Your task to perform on an android device: turn off translation in the chrome app Image 0: 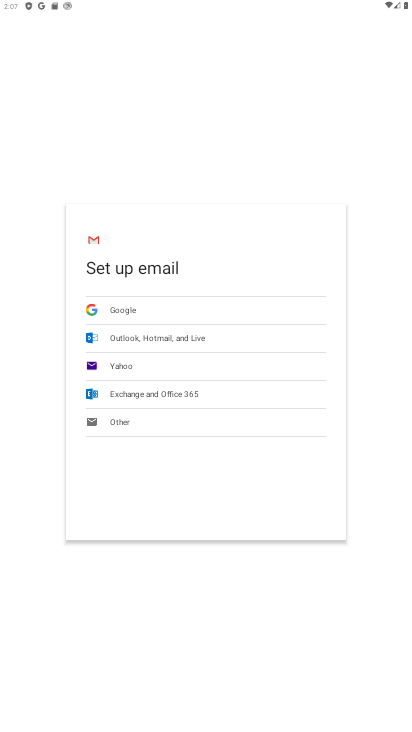
Step 0: press home button
Your task to perform on an android device: turn off translation in the chrome app Image 1: 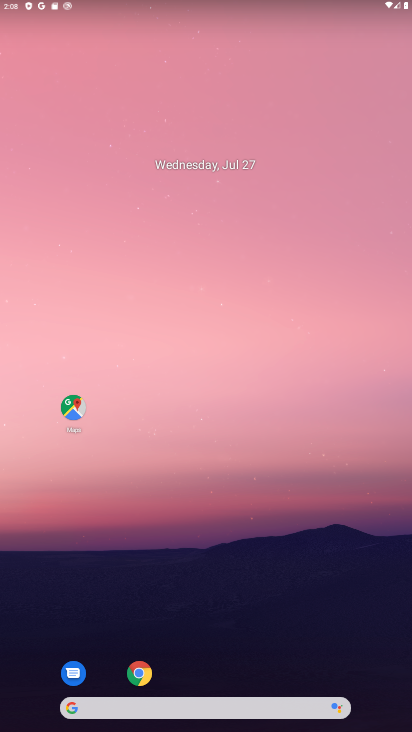
Step 1: click (153, 676)
Your task to perform on an android device: turn off translation in the chrome app Image 2: 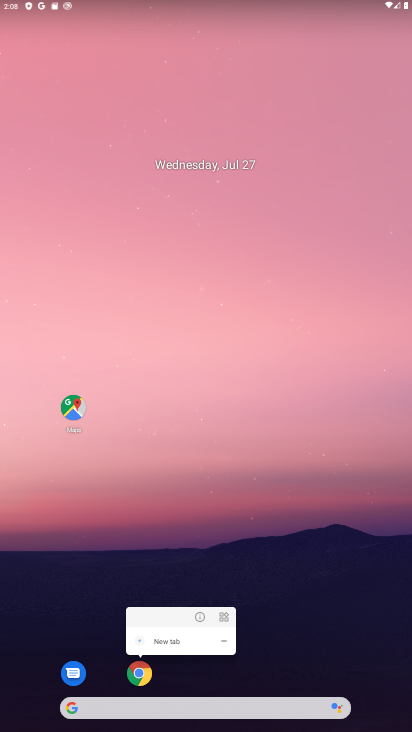
Step 2: click (153, 676)
Your task to perform on an android device: turn off translation in the chrome app Image 3: 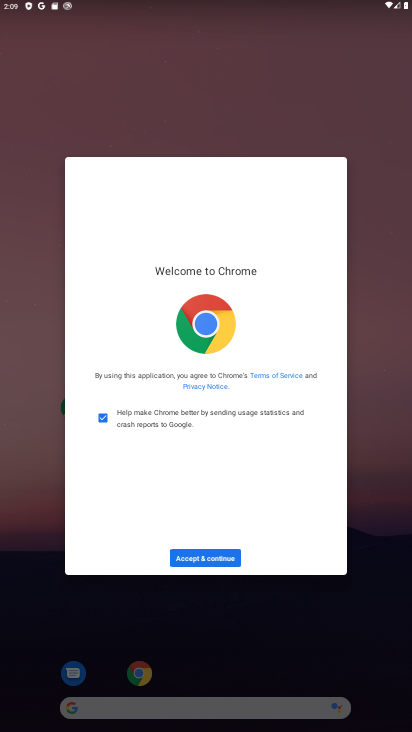
Step 3: click (204, 556)
Your task to perform on an android device: turn off translation in the chrome app Image 4: 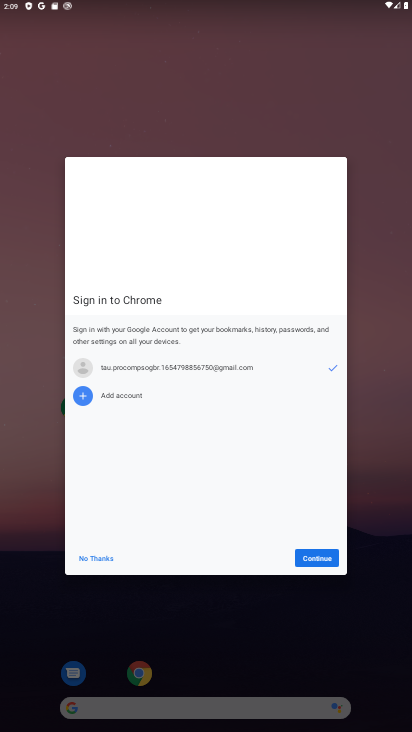
Step 4: click (307, 559)
Your task to perform on an android device: turn off translation in the chrome app Image 5: 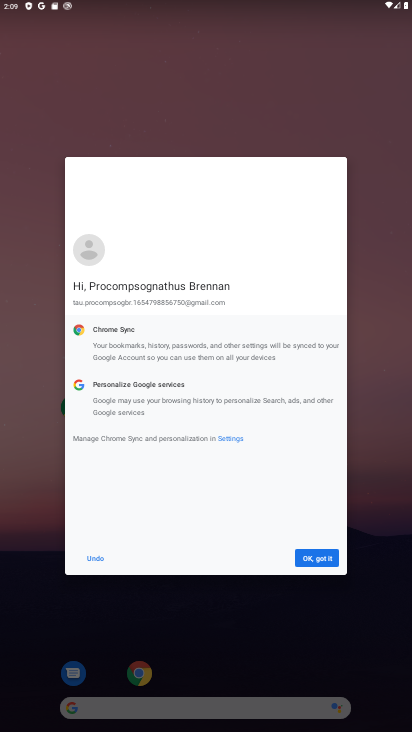
Step 5: click (307, 559)
Your task to perform on an android device: turn off translation in the chrome app Image 6: 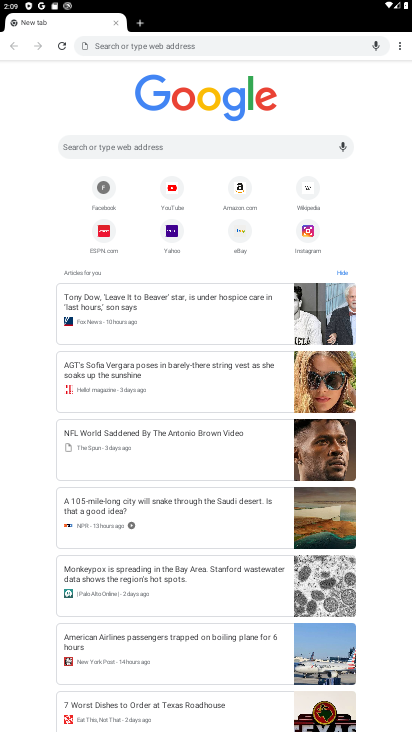
Step 6: click (401, 45)
Your task to perform on an android device: turn off translation in the chrome app Image 7: 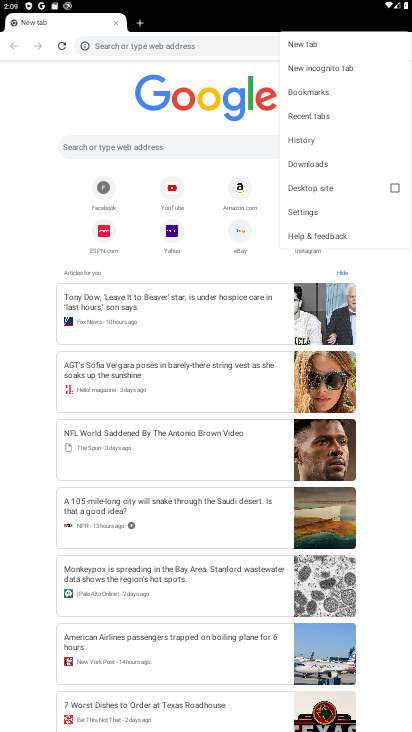
Step 7: click (325, 211)
Your task to perform on an android device: turn off translation in the chrome app Image 8: 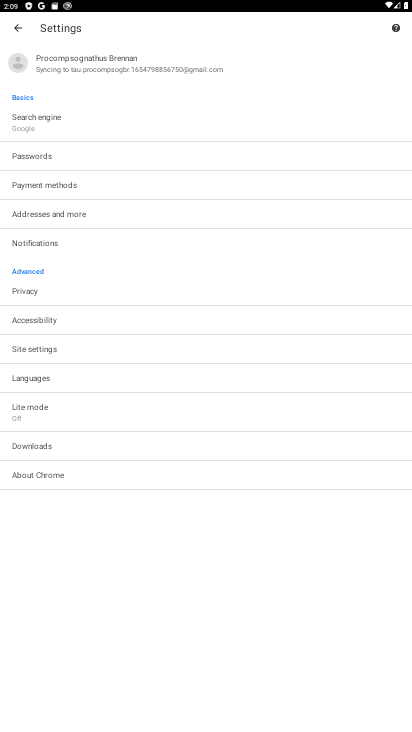
Step 8: click (58, 377)
Your task to perform on an android device: turn off translation in the chrome app Image 9: 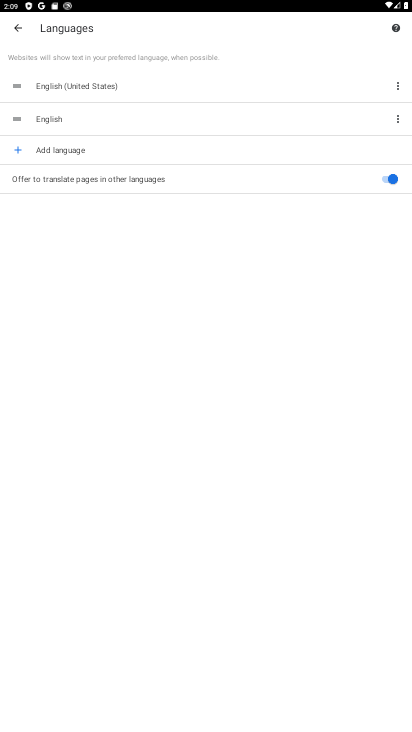
Step 9: click (394, 174)
Your task to perform on an android device: turn off translation in the chrome app Image 10: 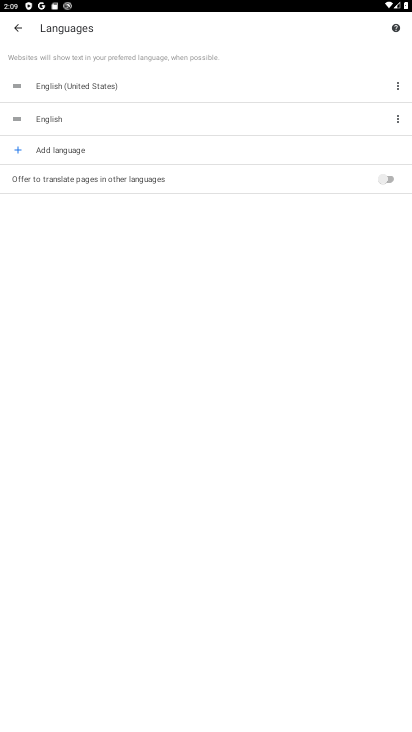
Step 10: task complete